Your task to perform on an android device: set default search engine in the chrome app Image 0: 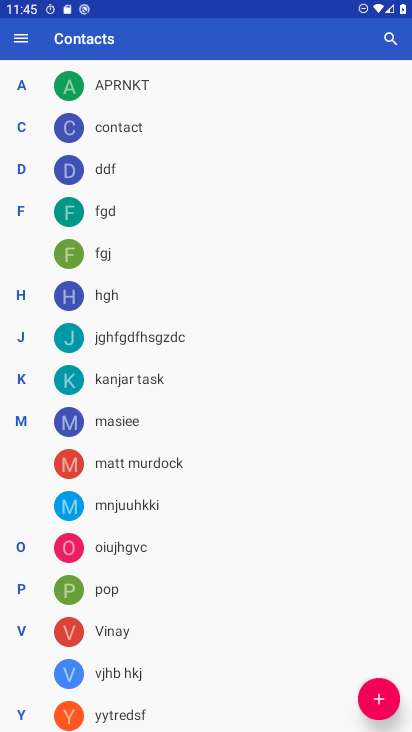
Step 0: press home button
Your task to perform on an android device: set default search engine in the chrome app Image 1: 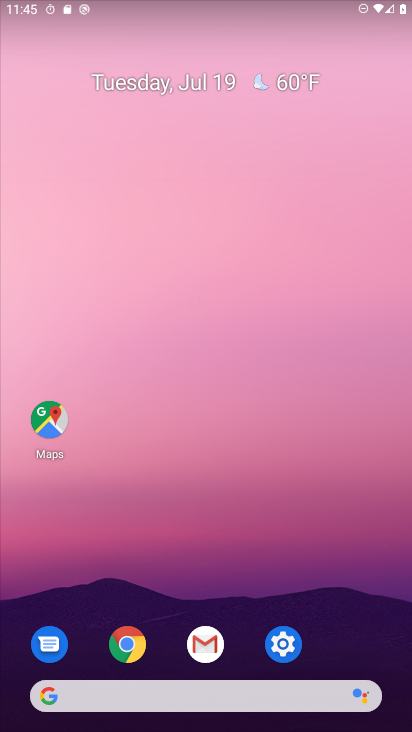
Step 1: click (132, 643)
Your task to perform on an android device: set default search engine in the chrome app Image 2: 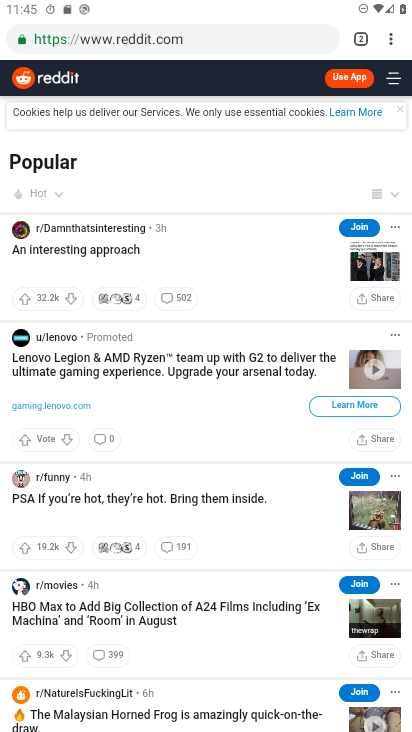
Step 2: click (385, 40)
Your task to perform on an android device: set default search engine in the chrome app Image 3: 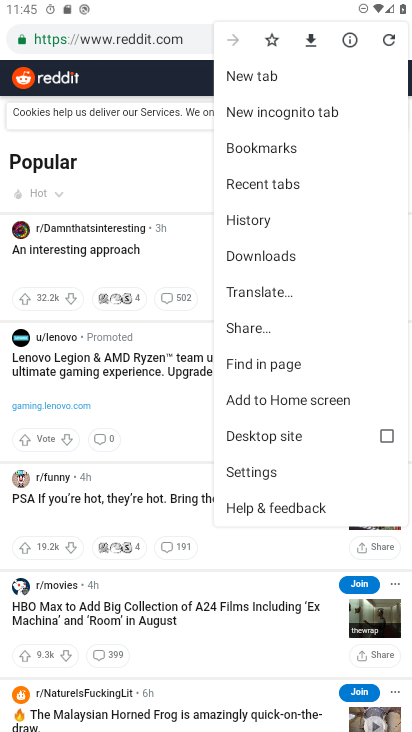
Step 3: click (257, 470)
Your task to perform on an android device: set default search engine in the chrome app Image 4: 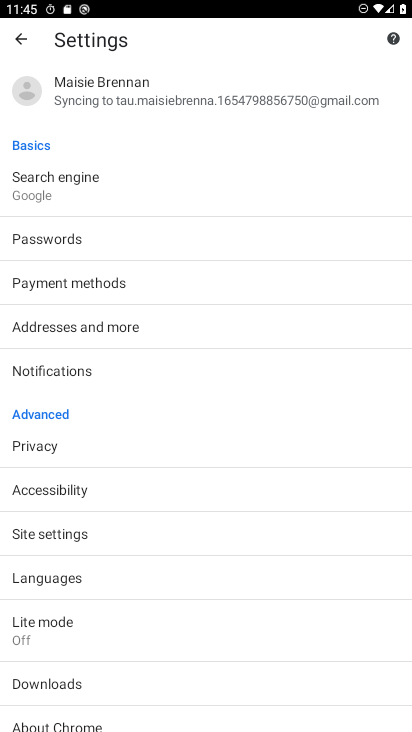
Step 4: click (101, 173)
Your task to perform on an android device: set default search engine in the chrome app Image 5: 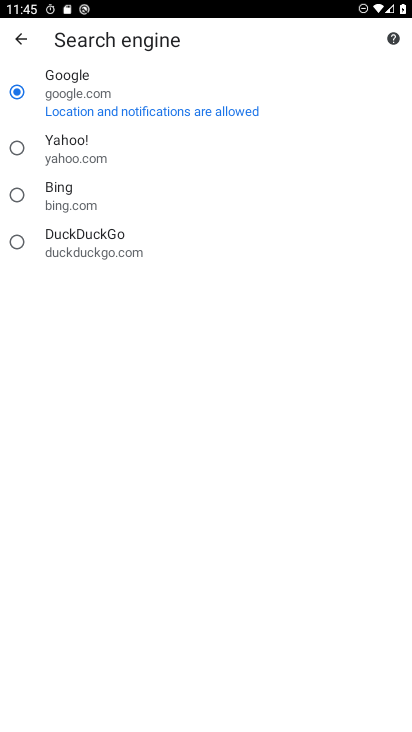
Step 5: task complete